Your task to perform on an android device: Go to calendar. Show me events next week Image 0: 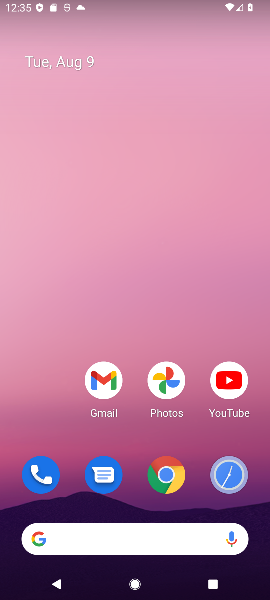
Step 0: drag from (129, 441) to (190, 6)
Your task to perform on an android device: Go to calendar. Show me events next week Image 1: 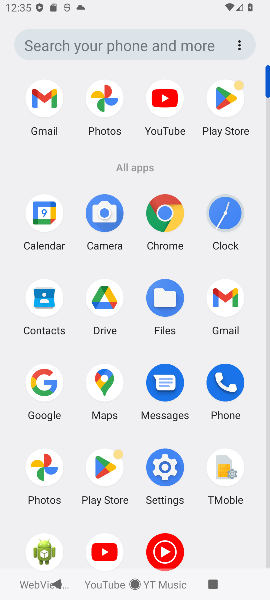
Step 1: click (48, 227)
Your task to perform on an android device: Go to calendar. Show me events next week Image 2: 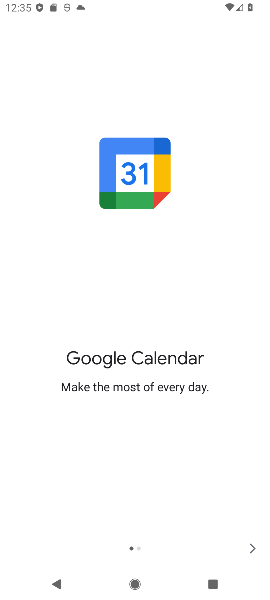
Step 2: click (244, 548)
Your task to perform on an android device: Go to calendar. Show me events next week Image 3: 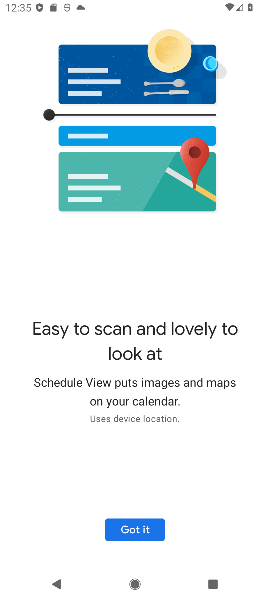
Step 3: click (132, 529)
Your task to perform on an android device: Go to calendar. Show me events next week Image 4: 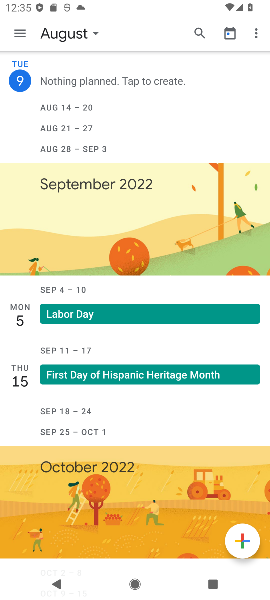
Step 4: click (55, 34)
Your task to perform on an android device: Go to calendar. Show me events next week Image 5: 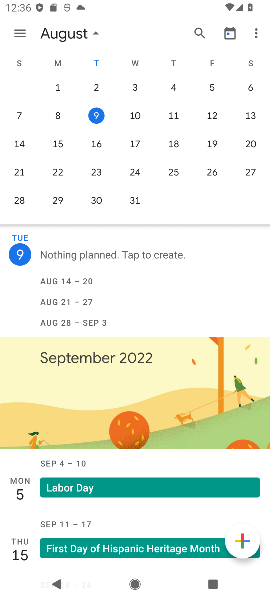
Step 5: click (24, 150)
Your task to perform on an android device: Go to calendar. Show me events next week Image 6: 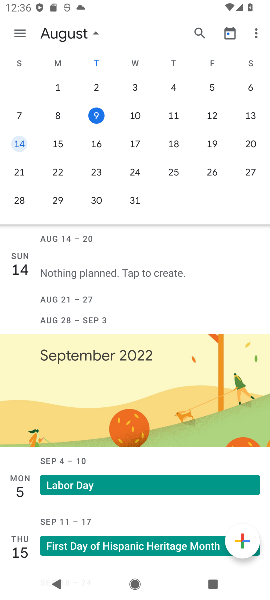
Step 6: click (59, 145)
Your task to perform on an android device: Go to calendar. Show me events next week Image 7: 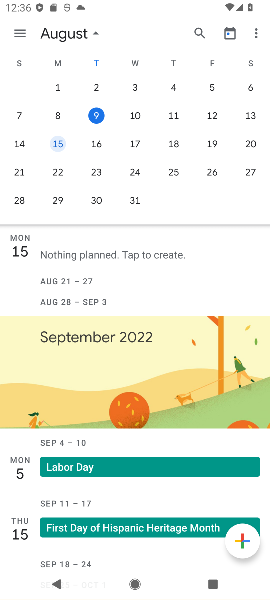
Step 7: click (94, 142)
Your task to perform on an android device: Go to calendar. Show me events next week Image 8: 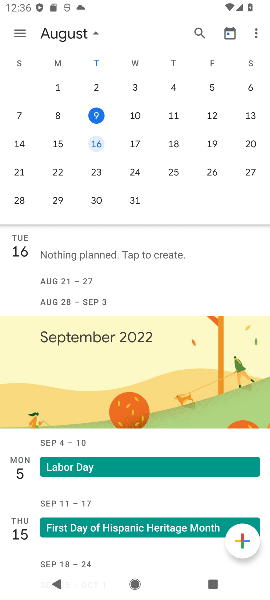
Step 8: click (136, 146)
Your task to perform on an android device: Go to calendar. Show me events next week Image 9: 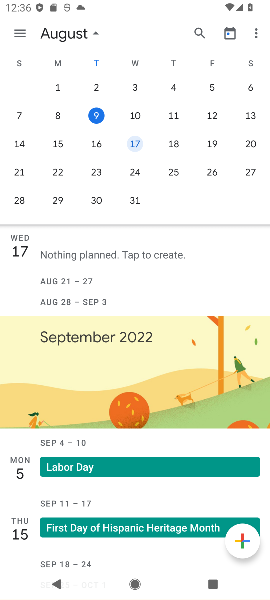
Step 9: click (172, 145)
Your task to perform on an android device: Go to calendar. Show me events next week Image 10: 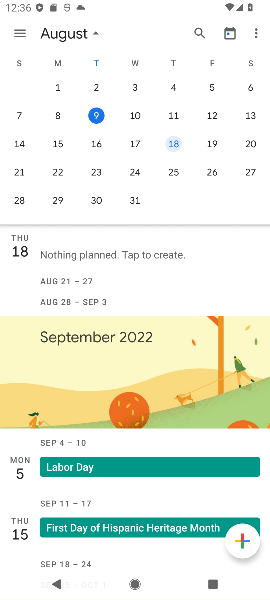
Step 10: click (216, 143)
Your task to perform on an android device: Go to calendar. Show me events next week Image 11: 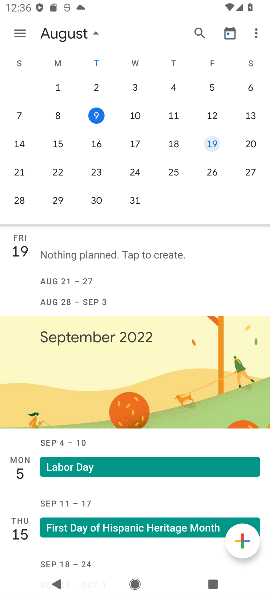
Step 11: click (247, 143)
Your task to perform on an android device: Go to calendar. Show me events next week Image 12: 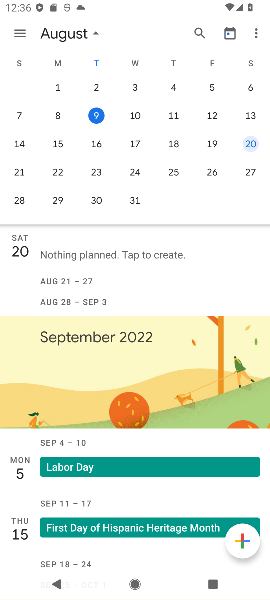
Step 12: task complete